Your task to perform on an android device: Show me recent news Image 0: 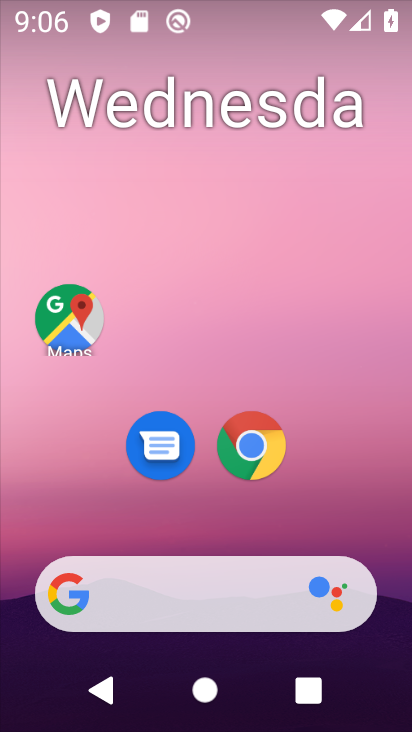
Step 0: click (82, 603)
Your task to perform on an android device: Show me recent news Image 1: 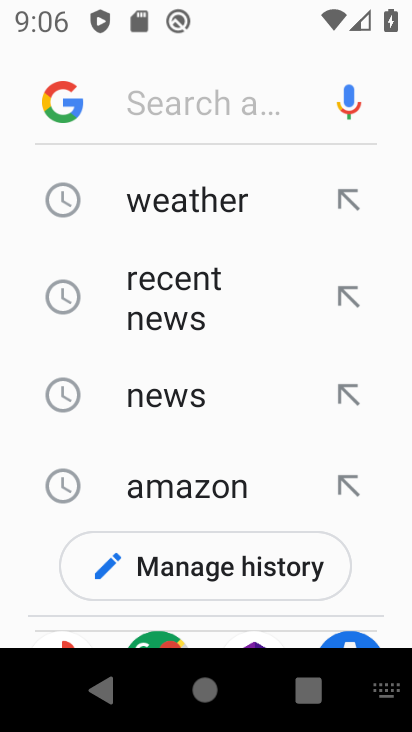
Step 1: click (175, 293)
Your task to perform on an android device: Show me recent news Image 2: 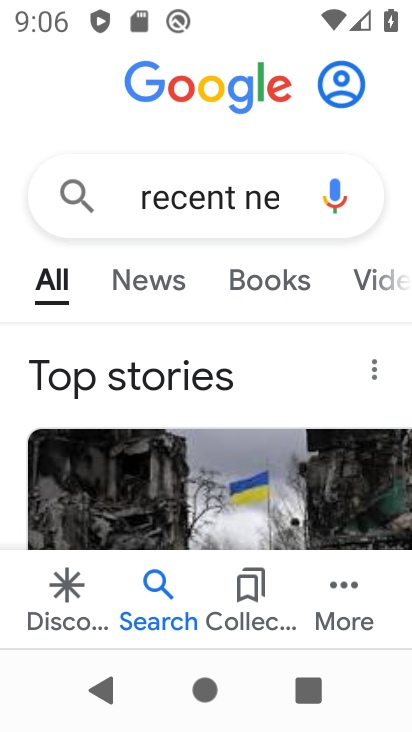
Step 2: task complete